Your task to perform on an android device: Open privacy settings Image 0: 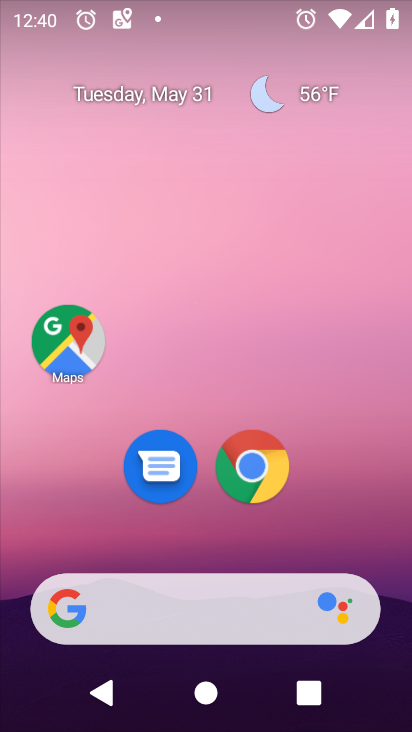
Step 0: drag from (237, 582) to (230, 145)
Your task to perform on an android device: Open privacy settings Image 1: 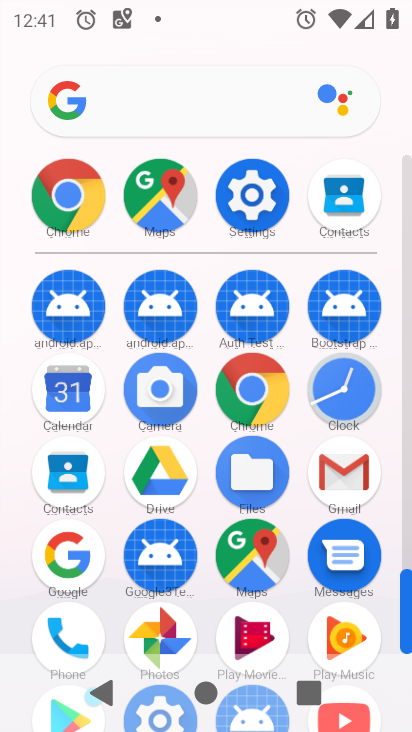
Step 1: click (256, 175)
Your task to perform on an android device: Open privacy settings Image 2: 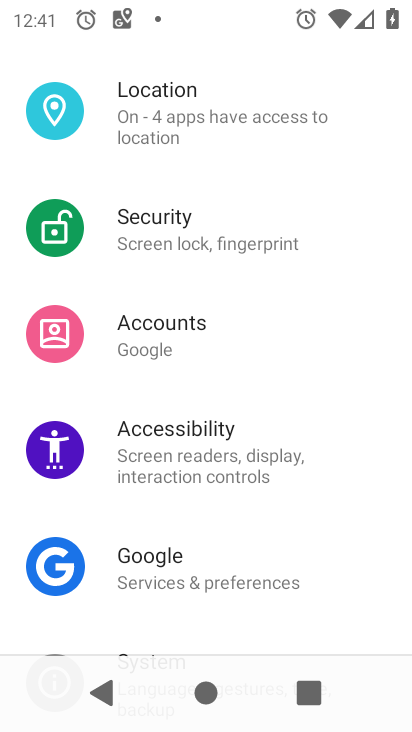
Step 2: drag from (168, 559) to (162, 124)
Your task to perform on an android device: Open privacy settings Image 3: 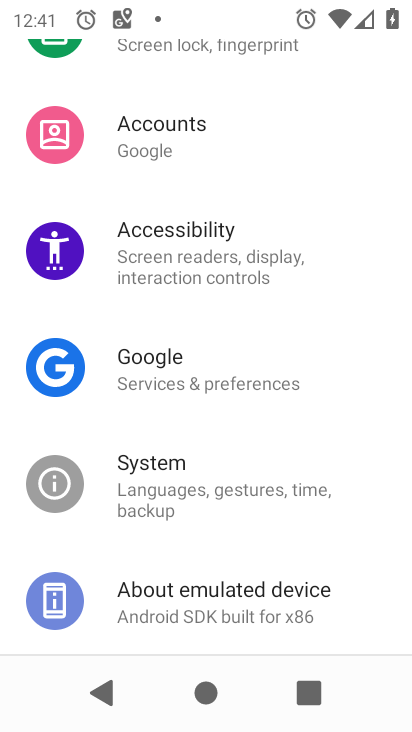
Step 3: drag from (180, 254) to (218, 687)
Your task to perform on an android device: Open privacy settings Image 4: 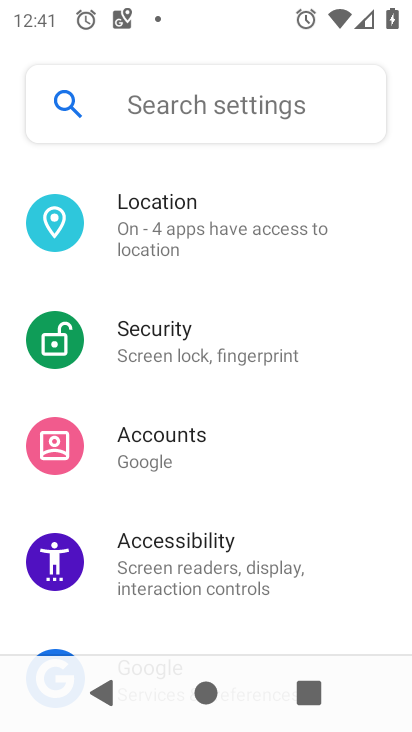
Step 4: drag from (204, 349) to (152, 715)
Your task to perform on an android device: Open privacy settings Image 5: 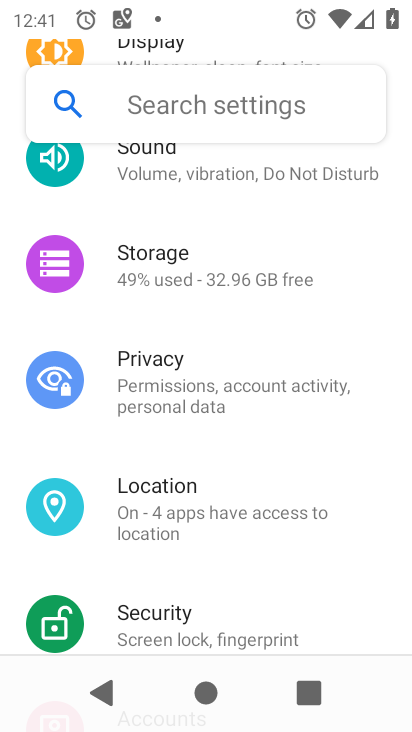
Step 5: click (130, 388)
Your task to perform on an android device: Open privacy settings Image 6: 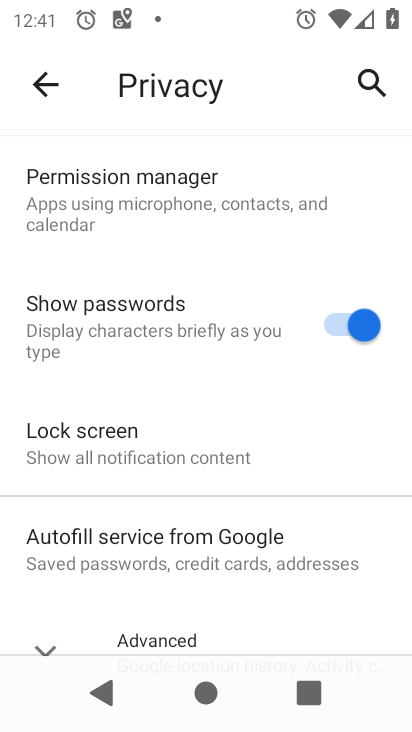
Step 6: task complete